Your task to perform on an android device: set the timer Image 0: 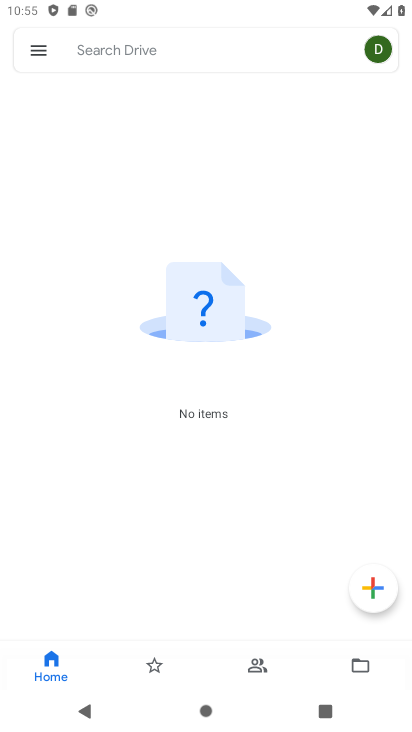
Step 0: drag from (242, 509) to (10, 2)
Your task to perform on an android device: set the timer Image 1: 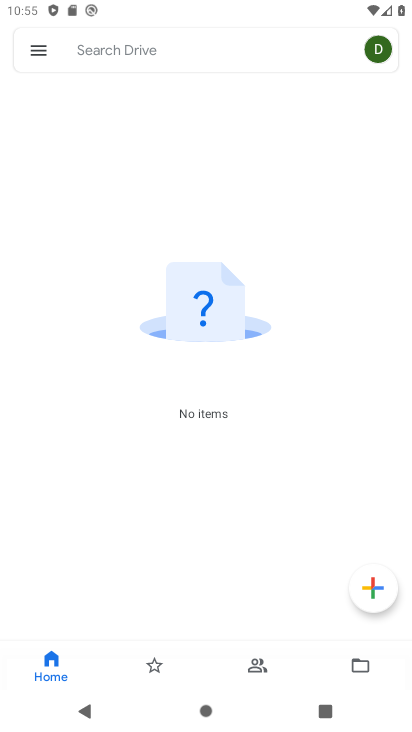
Step 1: press home button
Your task to perform on an android device: set the timer Image 2: 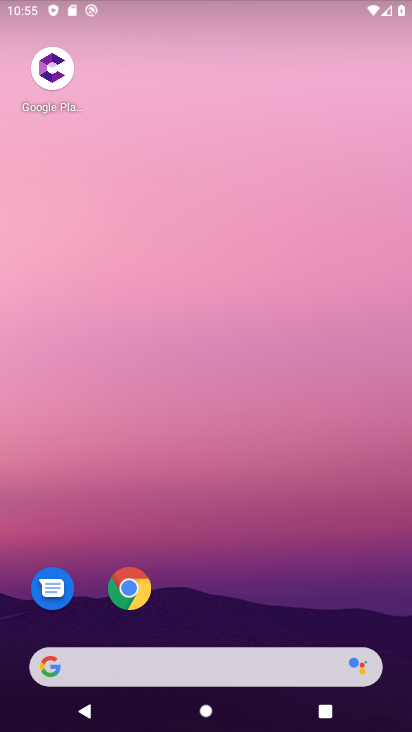
Step 2: click (314, 5)
Your task to perform on an android device: set the timer Image 3: 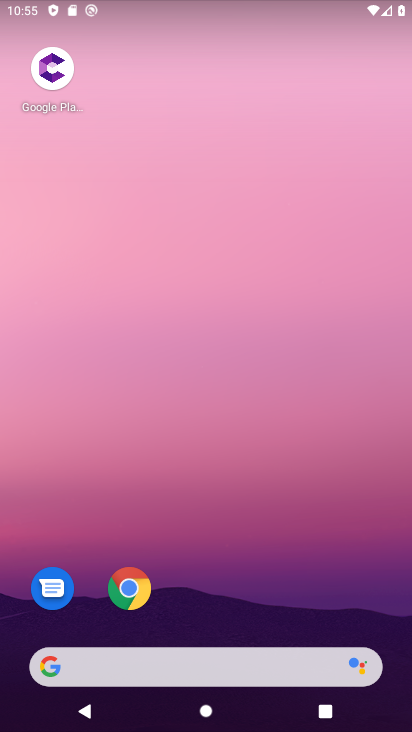
Step 3: drag from (185, 590) to (231, 17)
Your task to perform on an android device: set the timer Image 4: 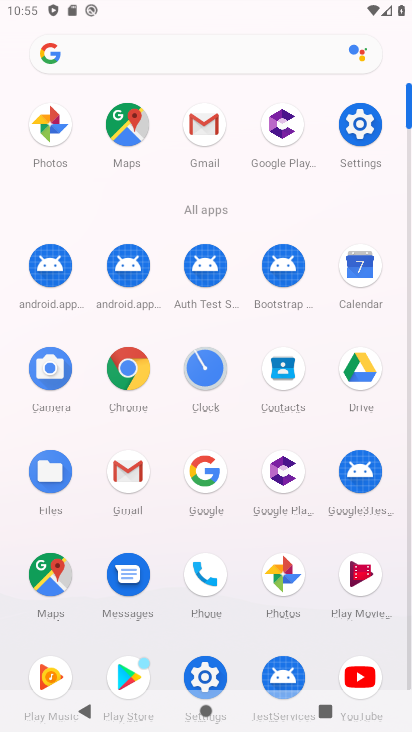
Step 4: click (198, 355)
Your task to perform on an android device: set the timer Image 5: 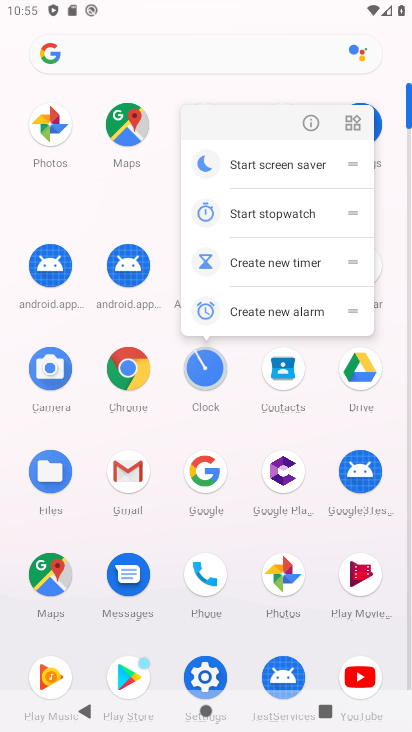
Step 5: click (315, 121)
Your task to perform on an android device: set the timer Image 6: 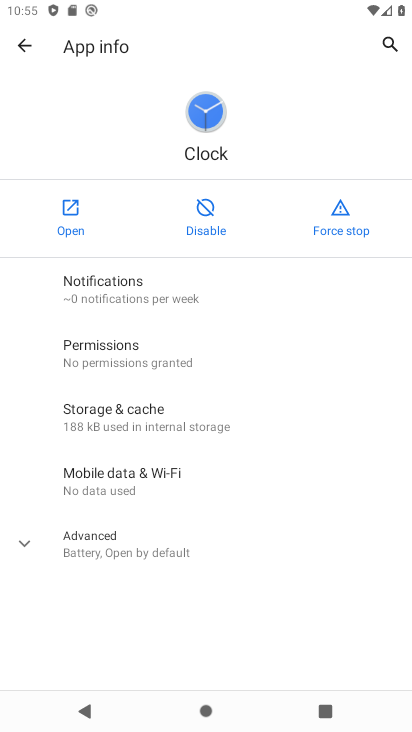
Step 6: click (67, 224)
Your task to perform on an android device: set the timer Image 7: 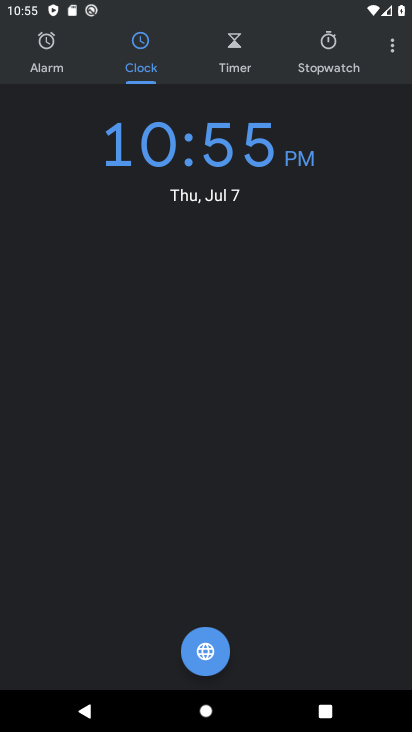
Step 7: click (248, 68)
Your task to perform on an android device: set the timer Image 8: 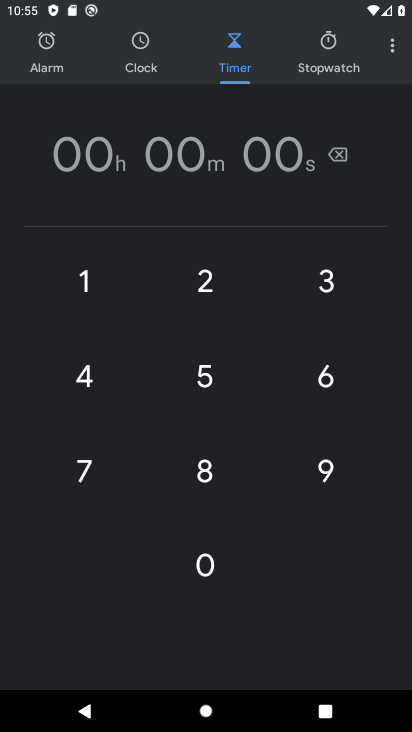
Step 8: click (204, 276)
Your task to perform on an android device: set the timer Image 9: 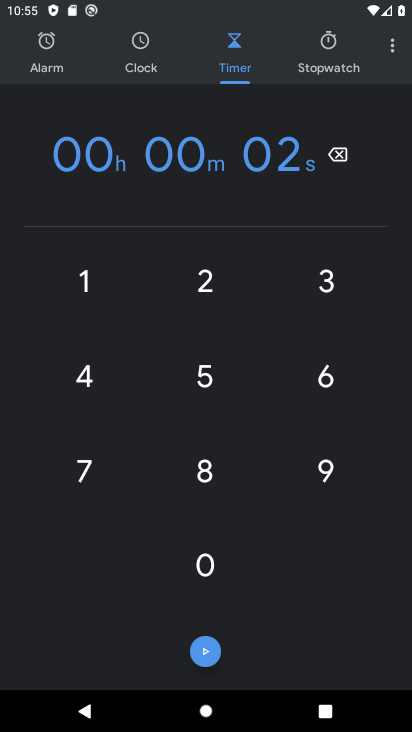
Step 9: click (202, 358)
Your task to perform on an android device: set the timer Image 10: 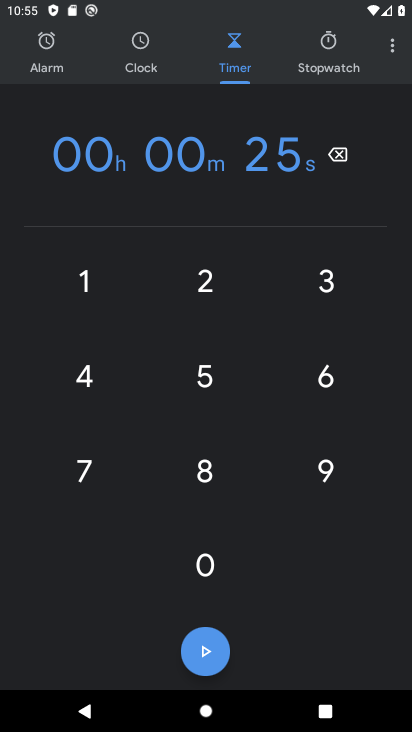
Step 10: click (212, 465)
Your task to perform on an android device: set the timer Image 11: 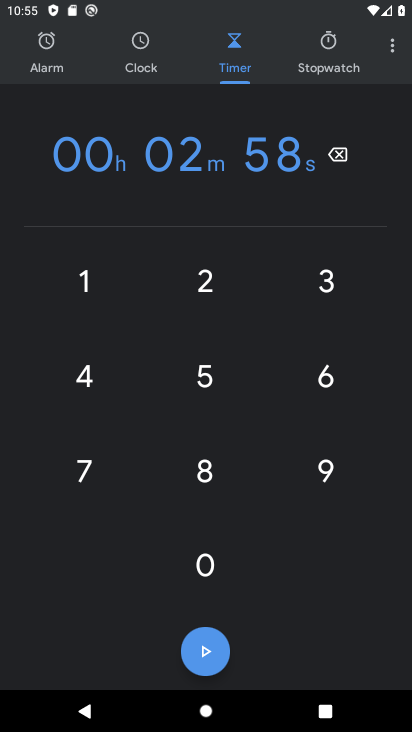
Step 11: click (195, 552)
Your task to perform on an android device: set the timer Image 12: 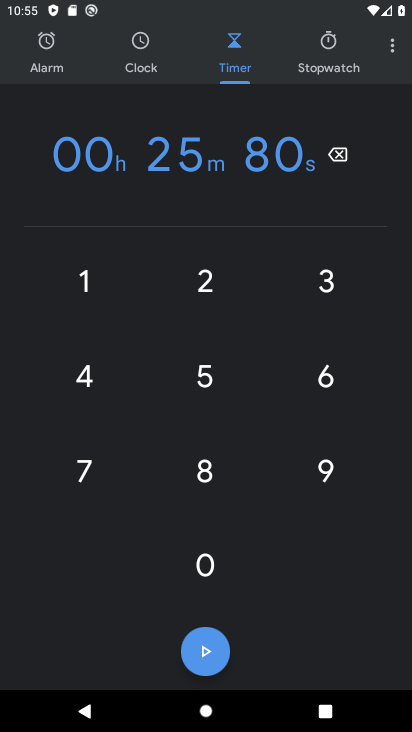
Step 12: click (211, 648)
Your task to perform on an android device: set the timer Image 13: 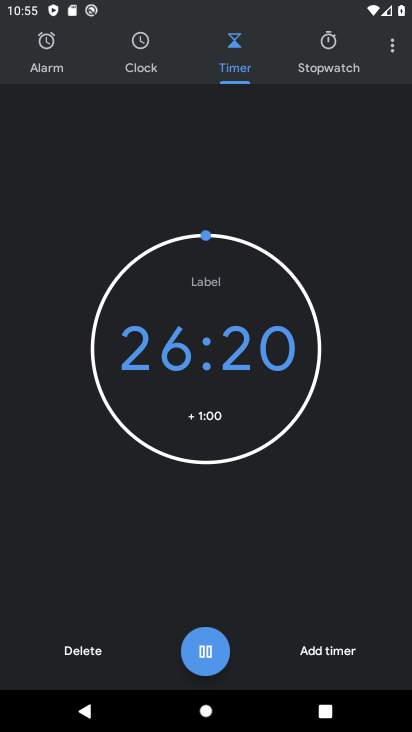
Step 13: task complete